Your task to perform on an android device: See recent photos Image 0: 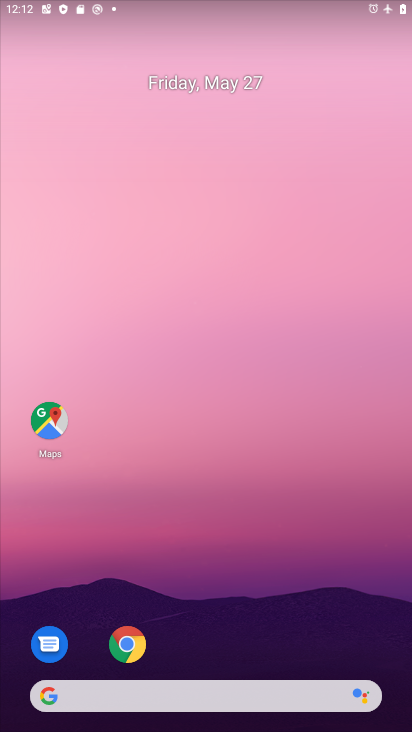
Step 0: drag from (201, 659) to (249, 180)
Your task to perform on an android device: See recent photos Image 1: 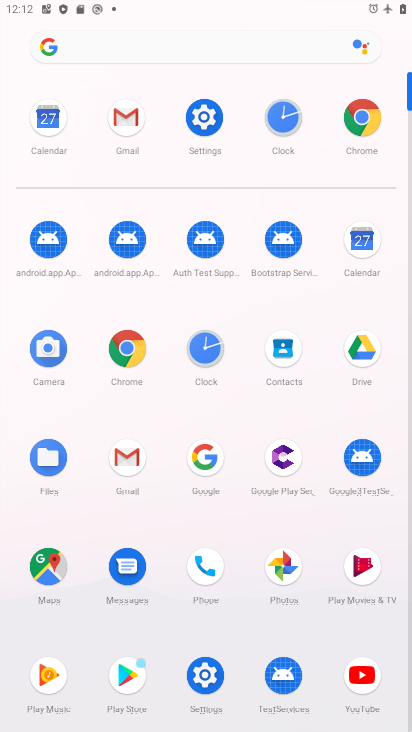
Step 1: click (281, 562)
Your task to perform on an android device: See recent photos Image 2: 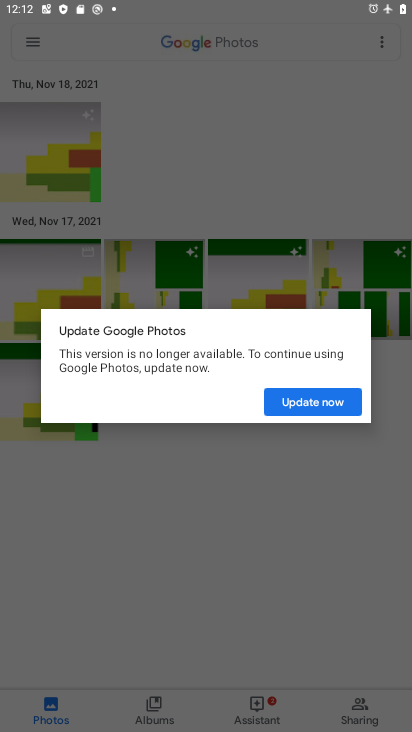
Step 2: click (309, 396)
Your task to perform on an android device: See recent photos Image 3: 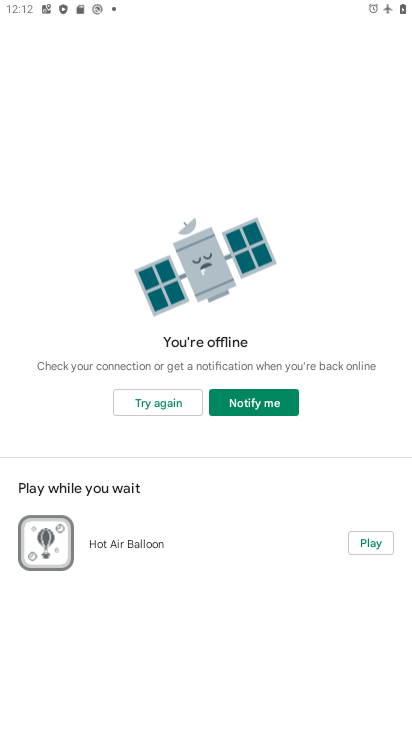
Step 3: task complete